Your task to perform on an android device: search for starred emails in the gmail app Image 0: 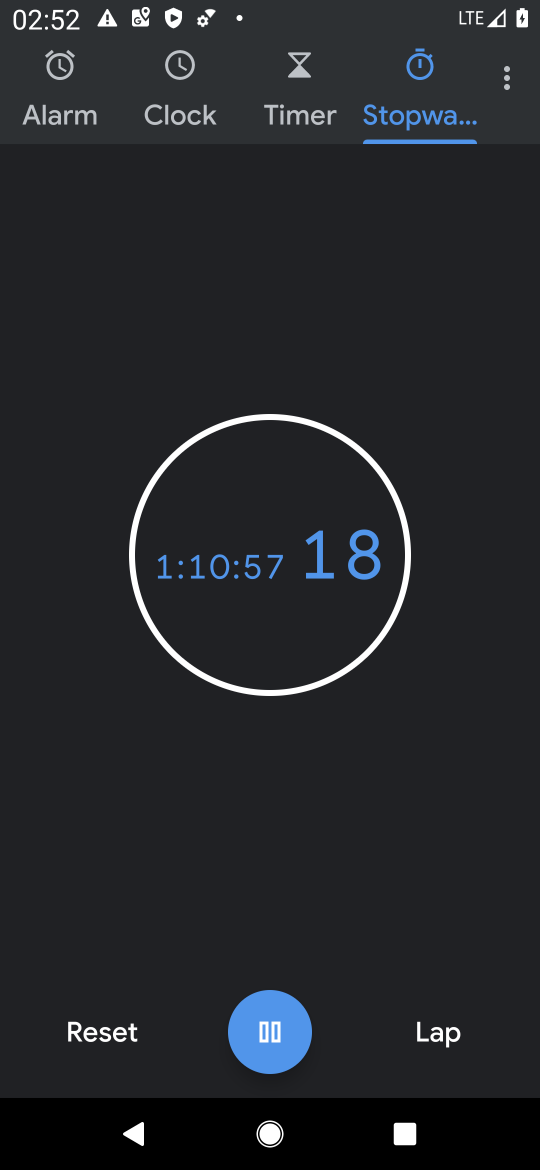
Step 0: press home button
Your task to perform on an android device: search for starred emails in the gmail app Image 1: 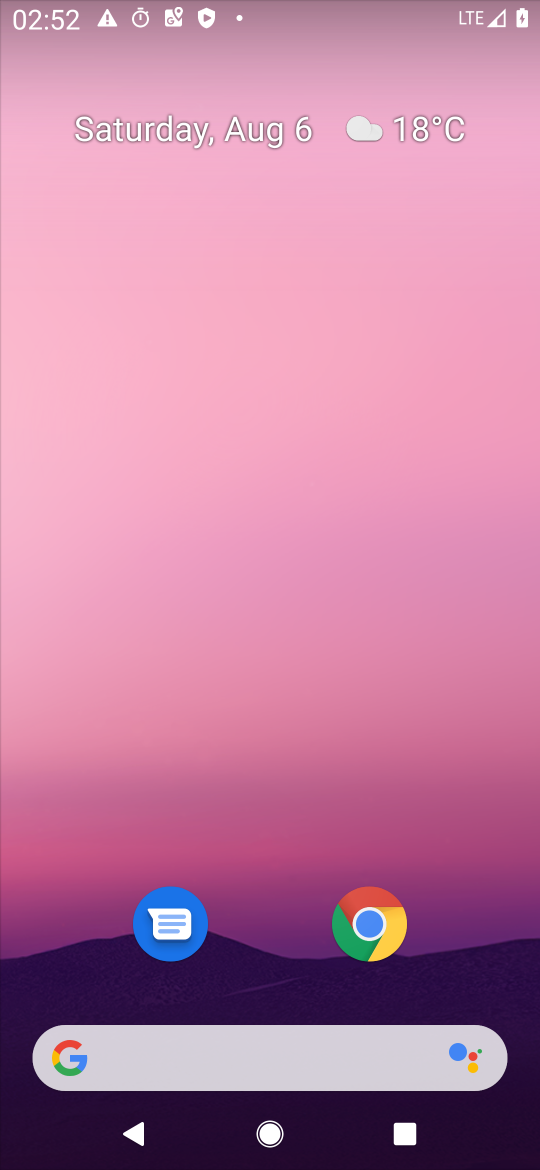
Step 1: drag from (347, 1052) to (305, 231)
Your task to perform on an android device: search for starred emails in the gmail app Image 2: 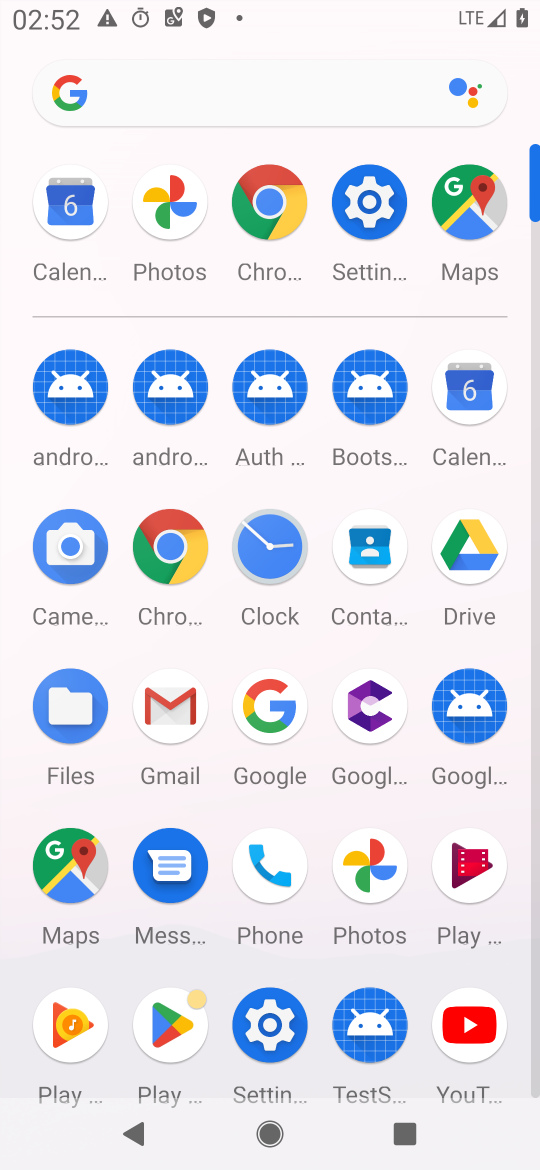
Step 2: click (154, 720)
Your task to perform on an android device: search for starred emails in the gmail app Image 3: 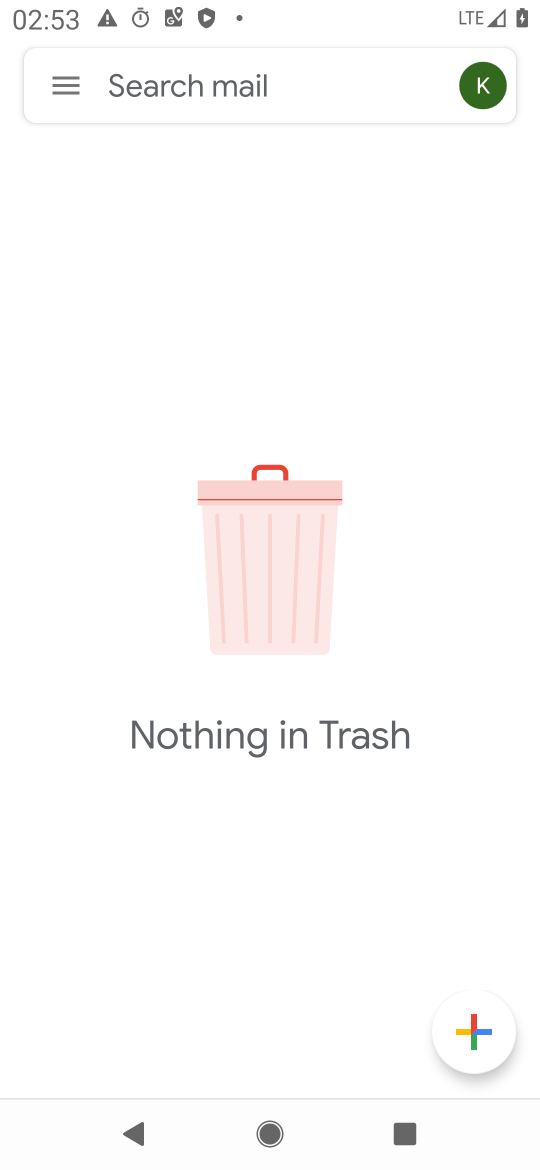
Step 3: click (65, 65)
Your task to perform on an android device: search for starred emails in the gmail app Image 4: 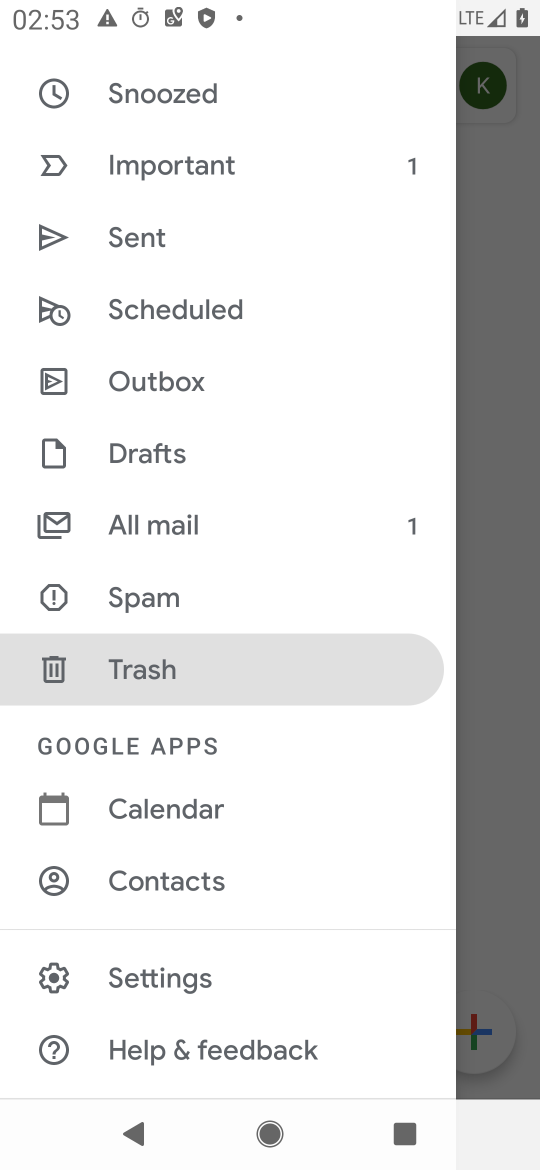
Step 4: drag from (262, 313) to (279, 909)
Your task to perform on an android device: search for starred emails in the gmail app Image 5: 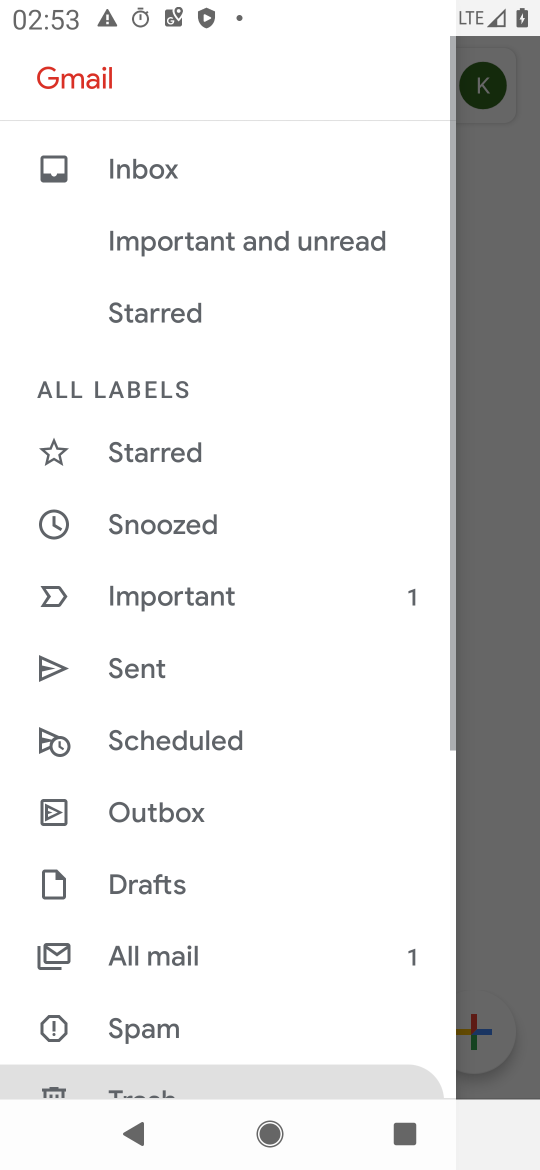
Step 5: click (194, 475)
Your task to perform on an android device: search for starred emails in the gmail app Image 6: 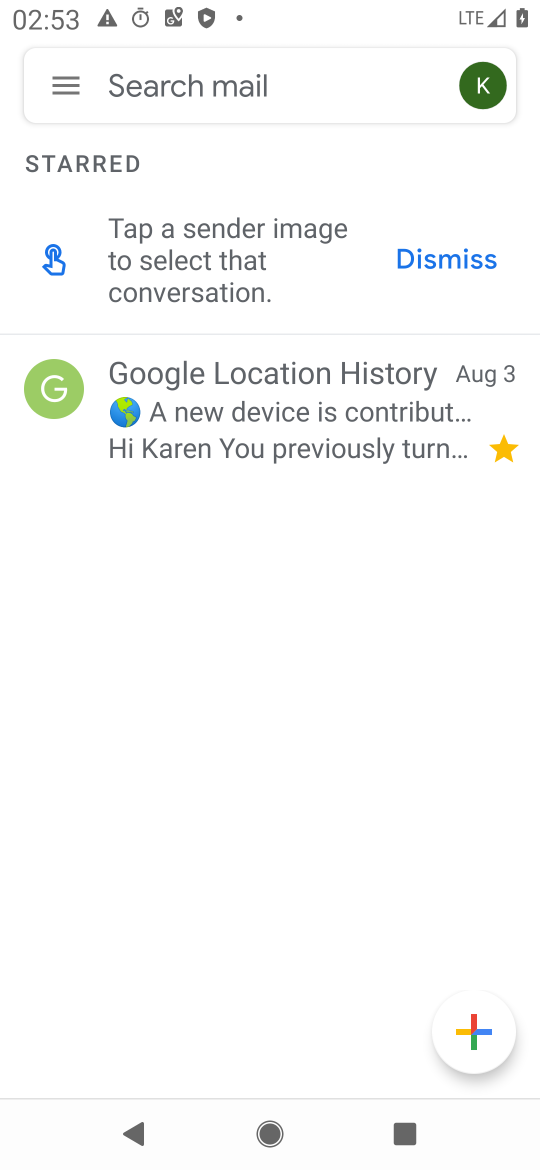
Step 6: task complete